Your task to perform on an android device: turn notification dots on Image 0: 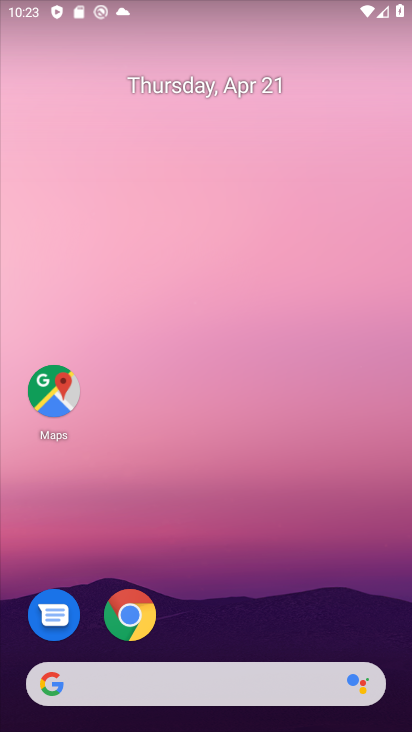
Step 0: drag from (203, 616) to (188, 79)
Your task to perform on an android device: turn notification dots on Image 1: 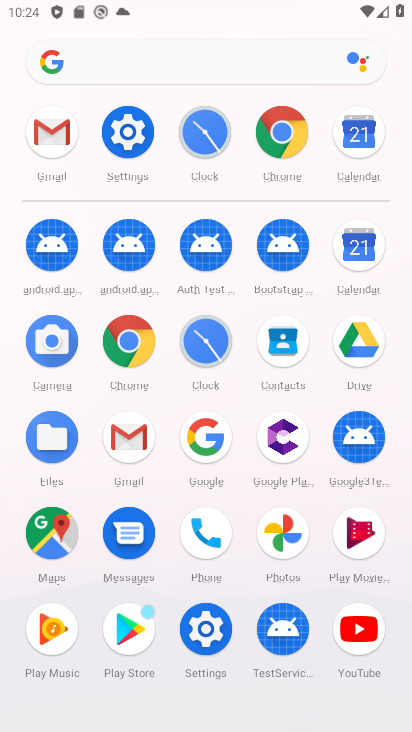
Step 1: click (135, 120)
Your task to perform on an android device: turn notification dots on Image 2: 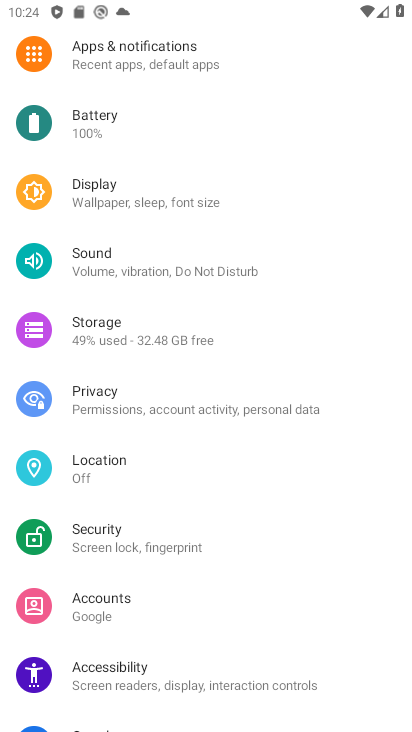
Step 2: click (142, 54)
Your task to perform on an android device: turn notification dots on Image 3: 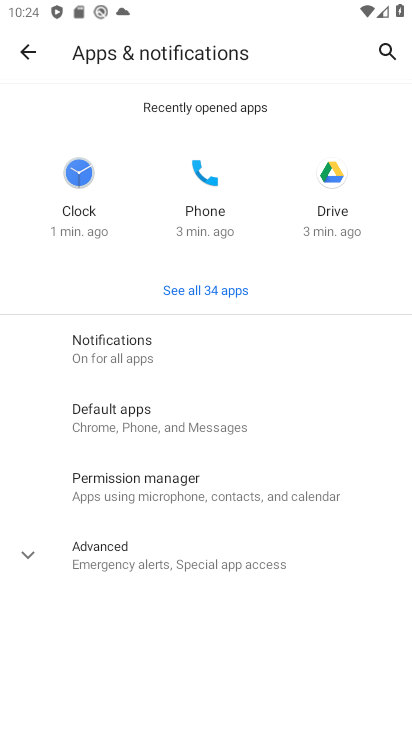
Step 3: click (158, 346)
Your task to perform on an android device: turn notification dots on Image 4: 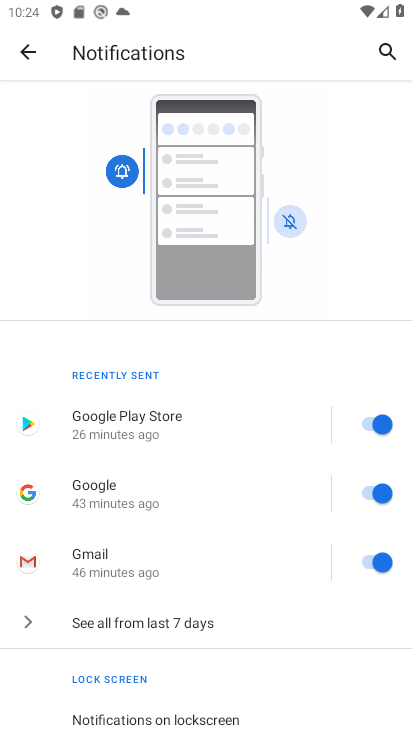
Step 4: drag from (188, 671) to (225, 199)
Your task to perform on an android device: turn notification dots on Image 5: 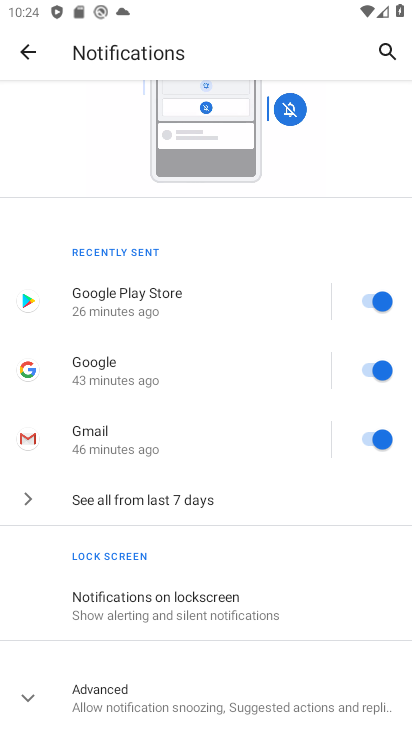
Step 5: click (163, 701)
Your task to perform on an android device: turn notification dots on Image 6: 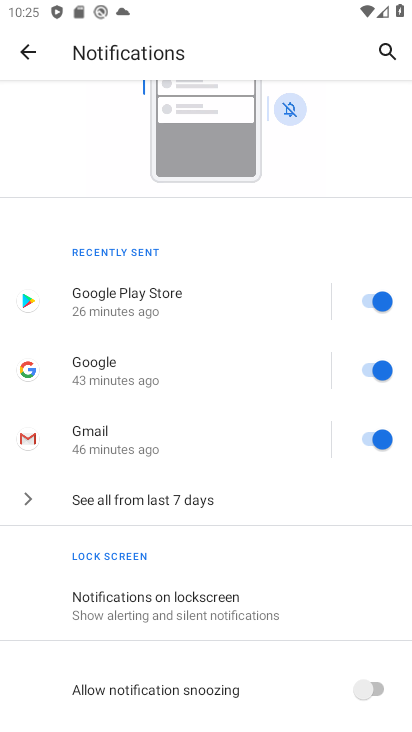
Step 6: task complete